Your task to perform on an android device: What are the new products by Samsung? Image 0: 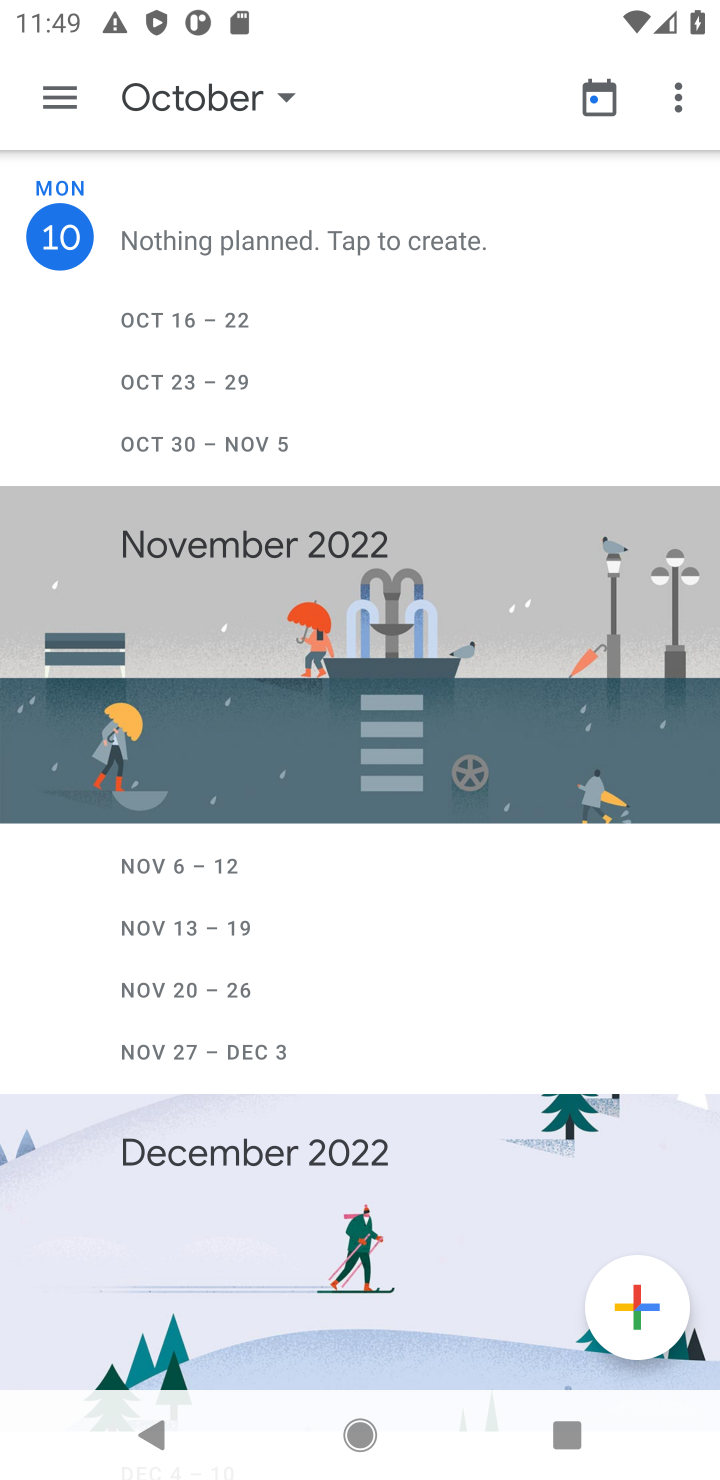
Step 0: press home button
Your task to perform on an android device: What are the new products by Samsung? Image 1: 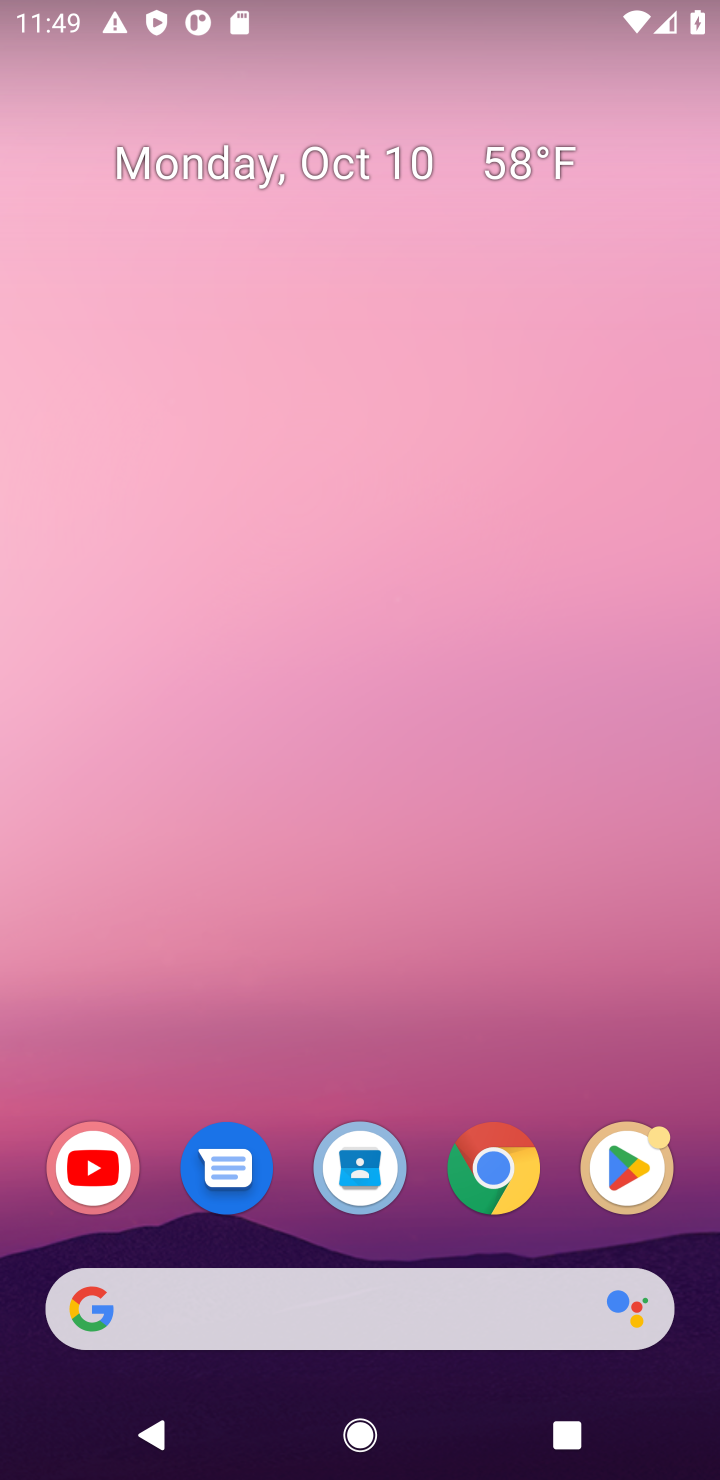
Step 1: click (353, 1304)
Your task to perform on an android device: What are the new products by Samsung? Image 2: 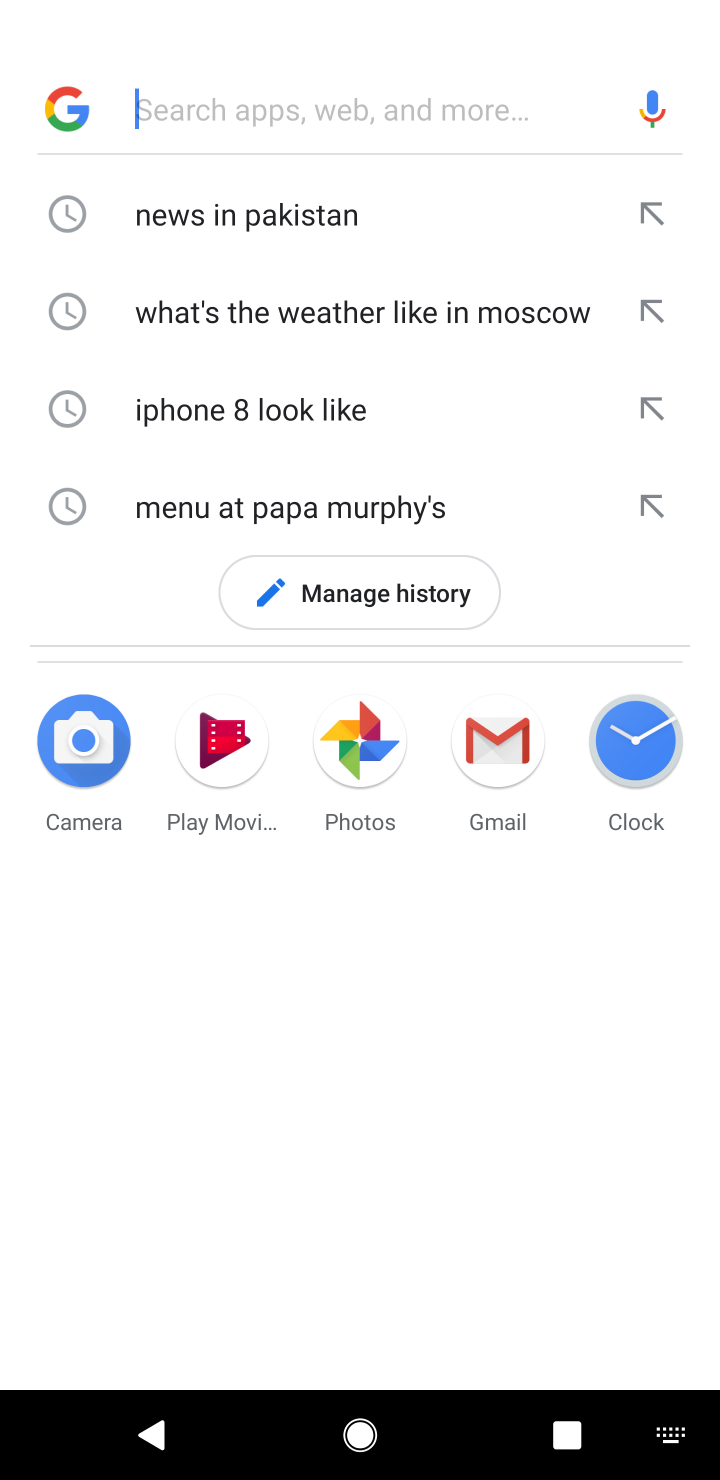
Step 2: type "new products by Samsung"
Your task to perform on an android device: What are the new products by Samsung? Image 3: 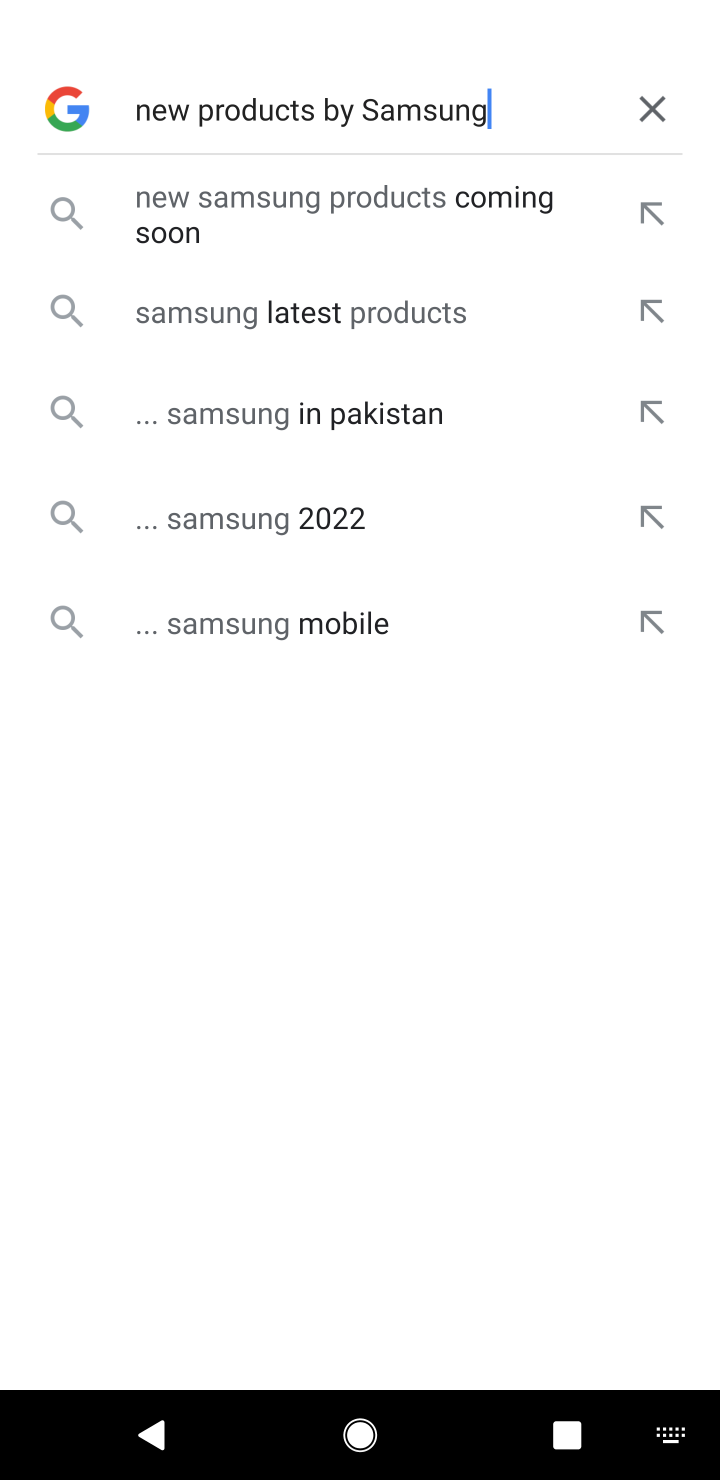
Step 3: click (417, 305)
Your task to perform on an android device: What are the new products by Samsung? Image 4: 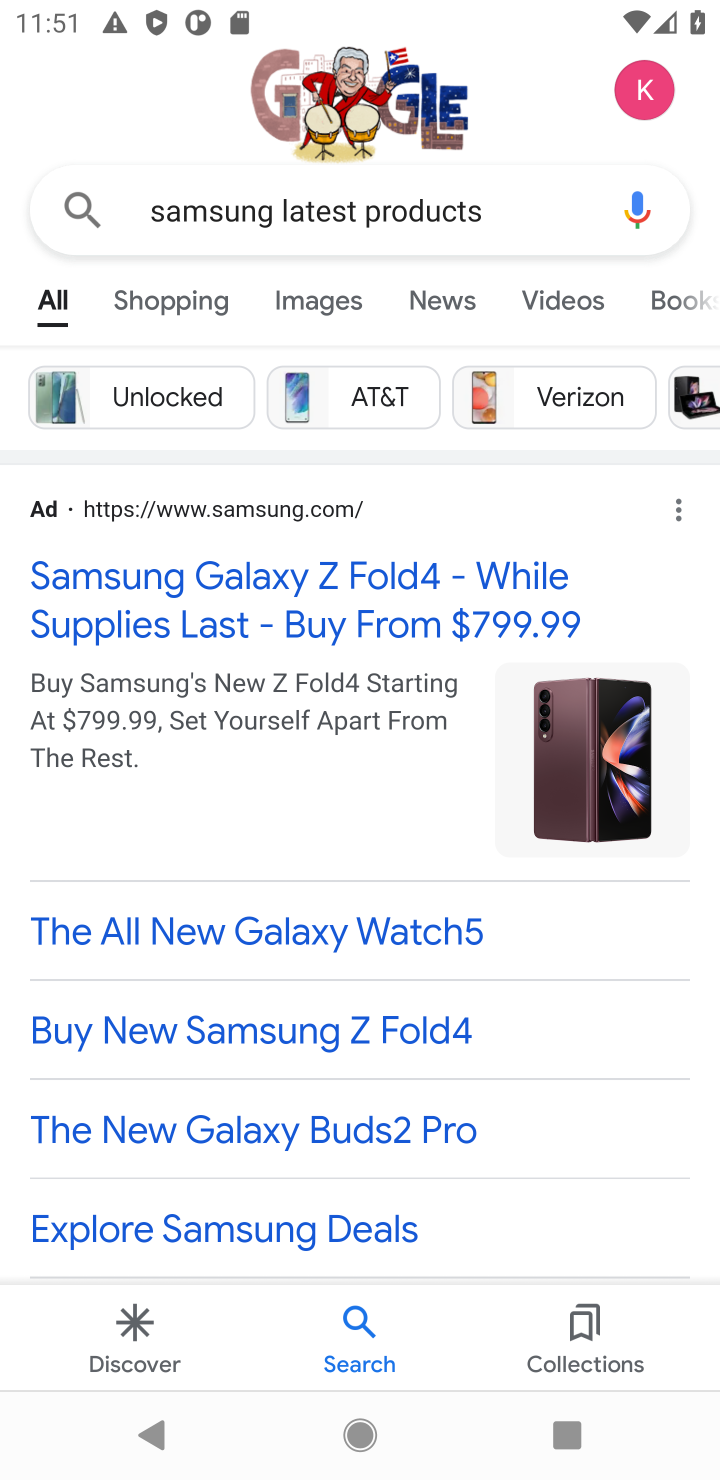
Step 4: task complete